Your task to perform on an android device: toggle notifications settings in the gmail app Image 0: 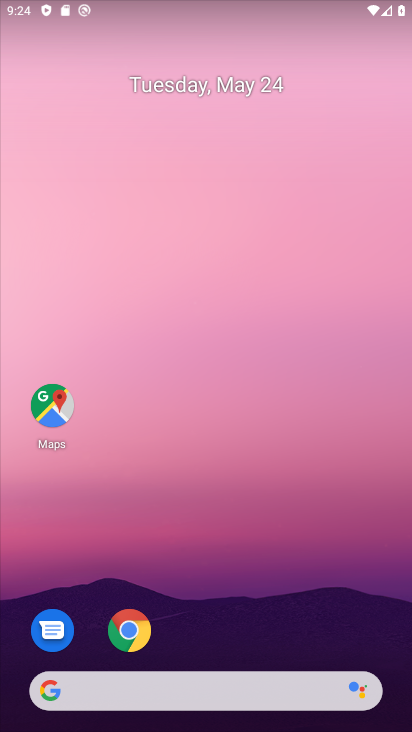
Step 0: click (358, 283)
Your task to perform on an android device: toggle notifications settings in the gmail app Image 1: 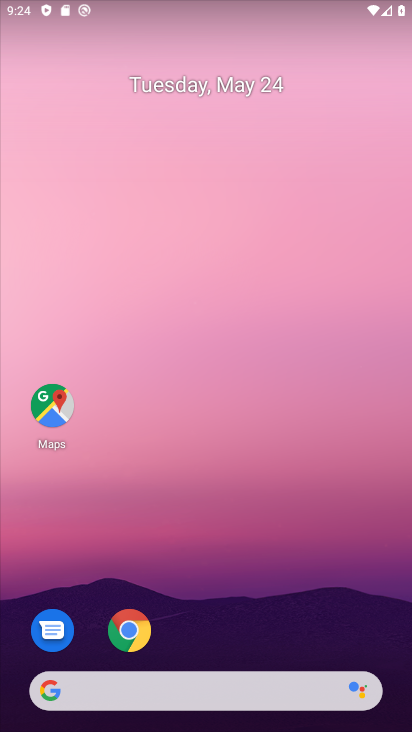
Step 1: drag from (286, 597) to (346, 17)
Your task to perform on an android device: toggle notifications settings in the gmail app Image 2: 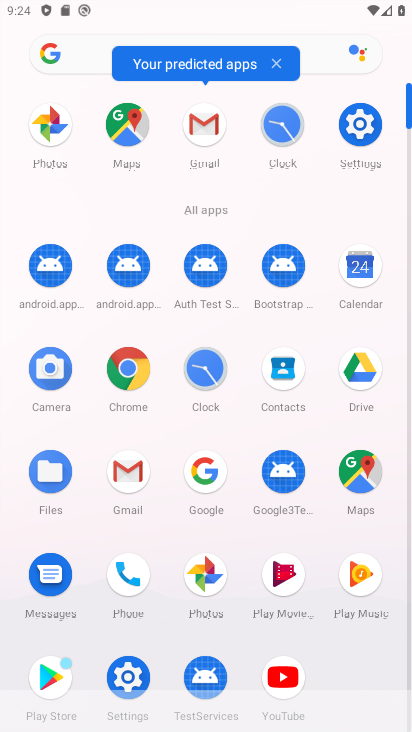
Step 2: click (206, 127)
Your task to perform on an android device: toggle notifications settings in the gmail app Image 3: 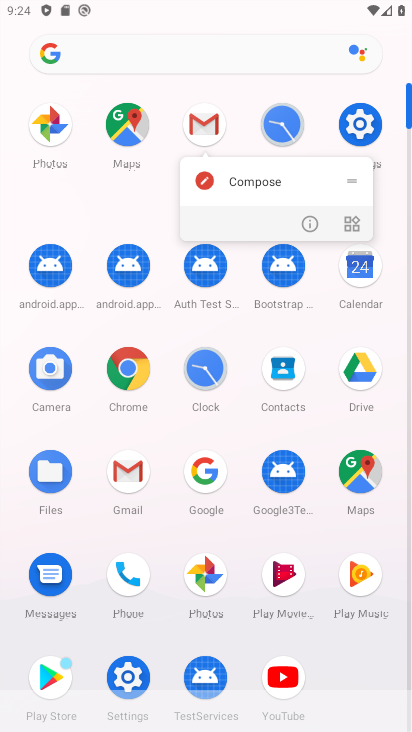
Step 3: click (316, 222)
Your task to perform on an android device: toggle notifications settings in the gmail app Image 4: 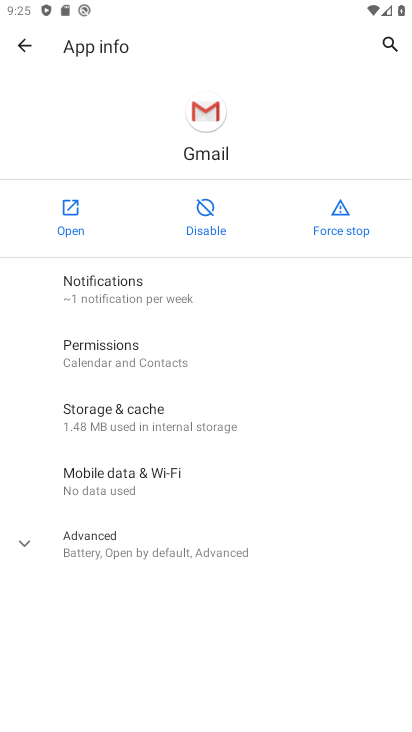
Step 4: click (174, 283)
Your task to perform on an android device: toggle notifications settings in the gmail app Image 5: 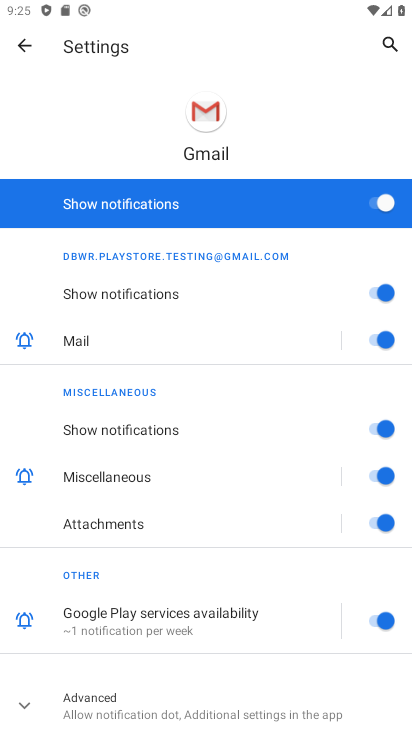
Step 5: click (383, 215)
Your task to perform on an android device: toggle notifications settings in the gmail app Image 6: 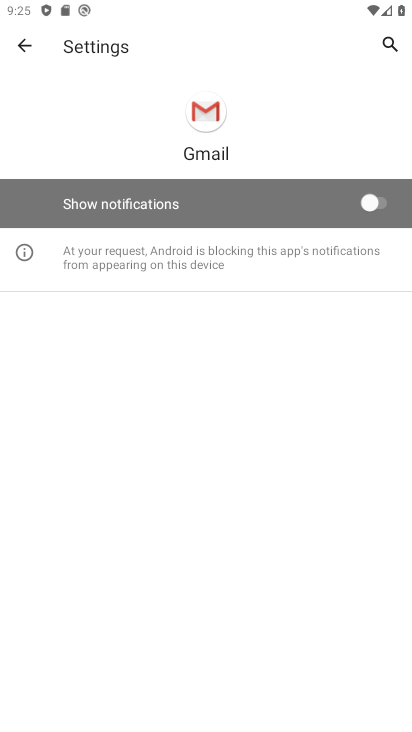
Step 6: task complete